Your task to perform on an android device: Open my contact list Image 0: 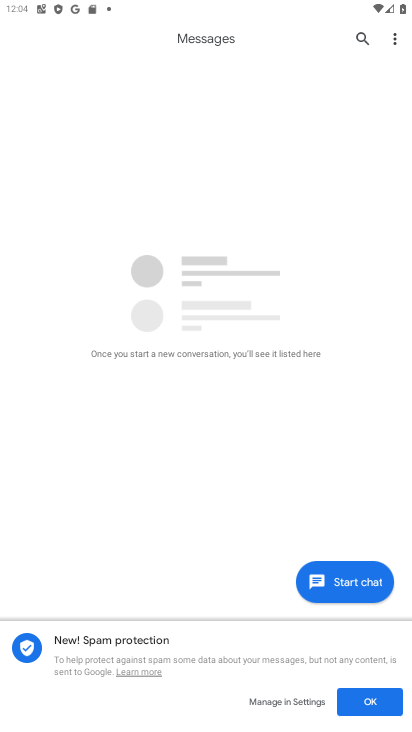
Step 0: press home button
Your task to perform on an android device: Open my contact list Image 1: 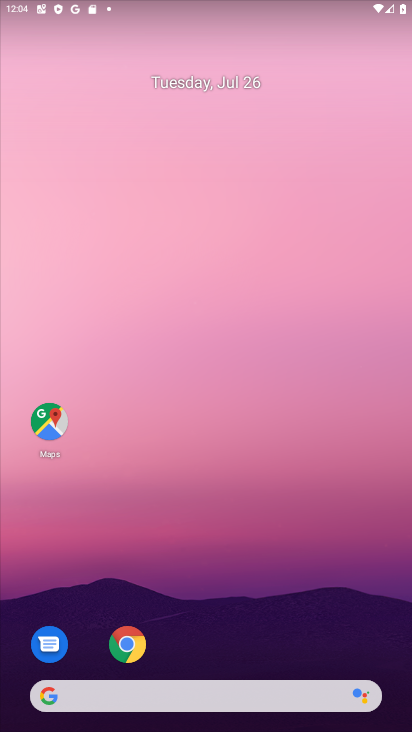
Step 1: drag from (214, 648) to (188, 20)
Your task to perform on an android device: Open my contact list Image 2: 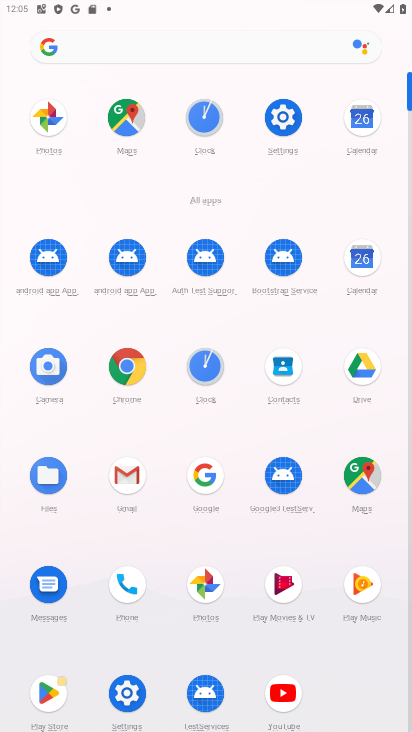
Step 2: click (283, 360)
Your task to perform on an android device: Open my contact list Image 3: 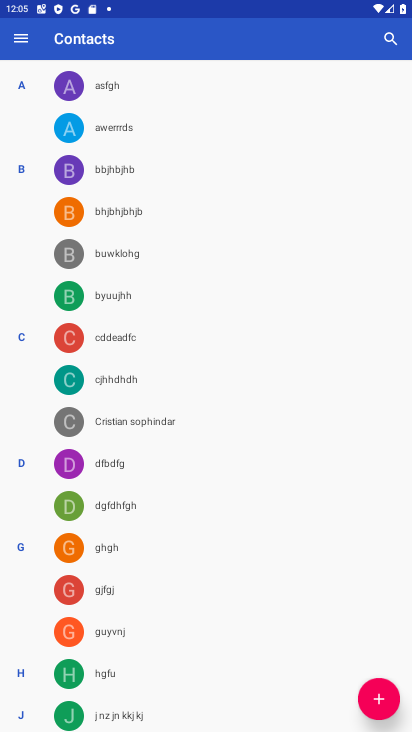
Step 3: task complete